Your task to perform on an android device: Do I have any events this weekend? Image 0: 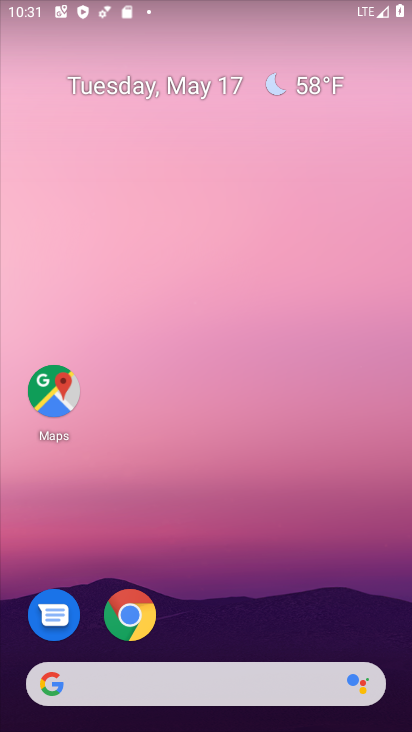
Step 0: drag from (217, 616) to (217, 128)
Your task to perform on an android device: Do I have any events this weekend? Image 1: 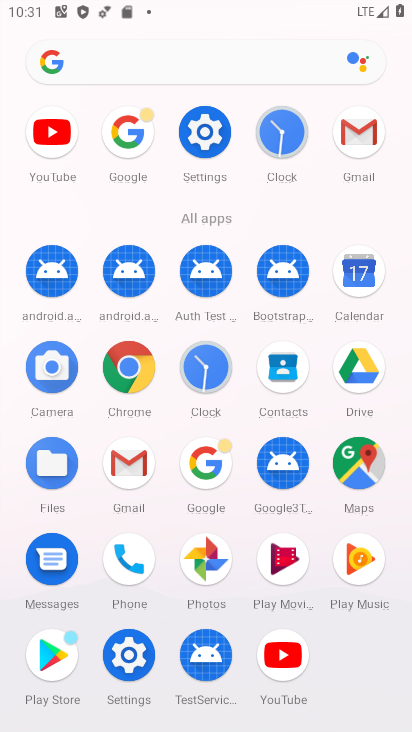
Step 1: click (346, 283)
Your task to perform on an android device: Do I have any events this weekend? Image 2: 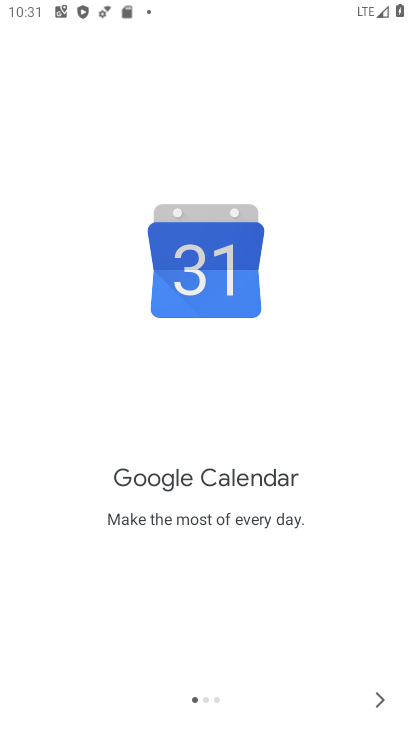
Step 2: click (375, 695)
Your task to perform on an android device: Do I have any events this weekend? Image 3: 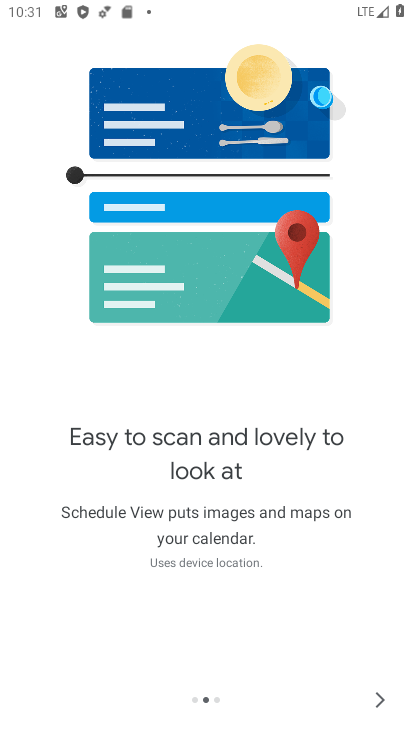
Step 3: click (375, 695)
Your task to perform on an android device: Do I have any events this weekend? Image 4: 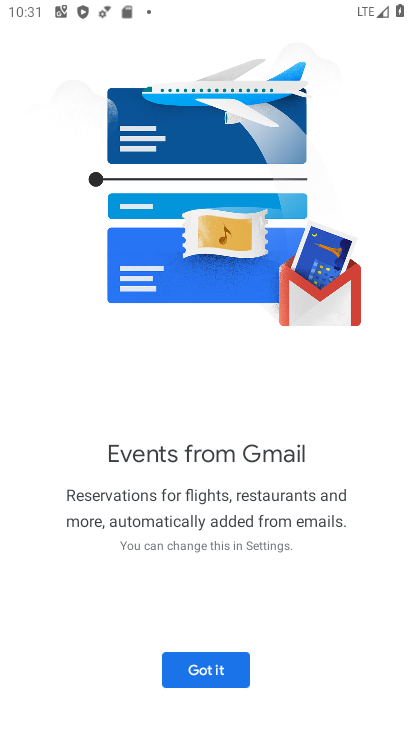
Step 4: click (181, 673)
Your task to perform on an android device: Do I have any events this weekend? Image 5: 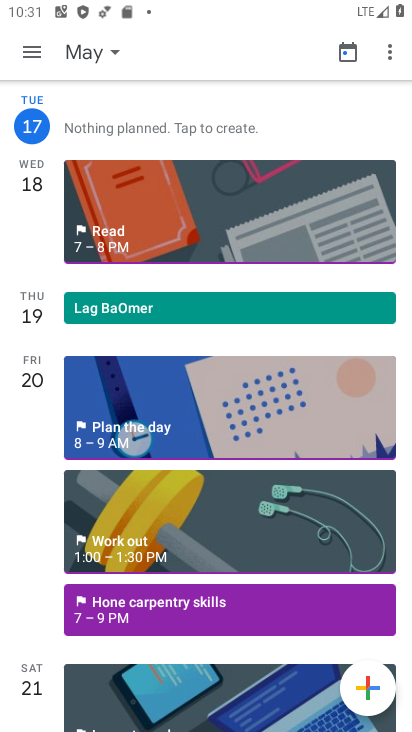
Step 5: task complete